Your task to perform on an android device: Go to Android settings Image 0: 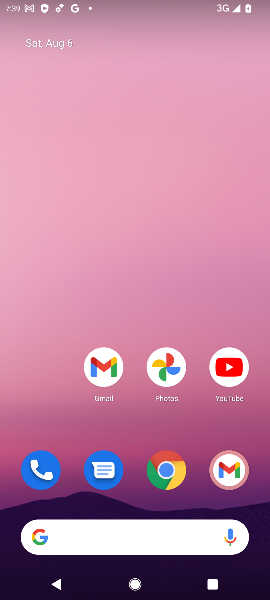
Step 0: drag from (143, 510) to (168, 30)
Your task to perform on an android device: Go to Android settings Image 1: 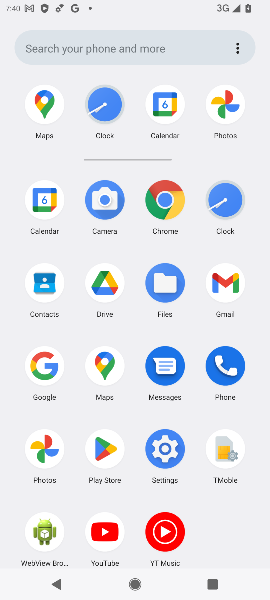
Step 1: click (177, 446)
Your task to perform on an android device: Go to Android settings Image 2: 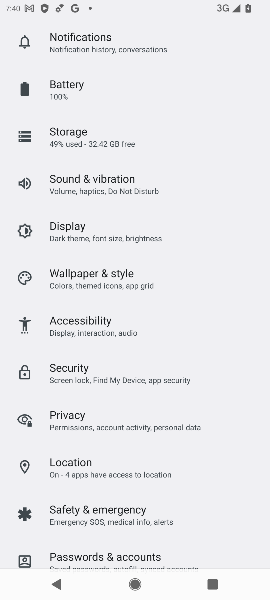
Step 2: drag from (96, 498) to (132, 30)
Your task to perform on an android device: Go to Android settings Image 3: 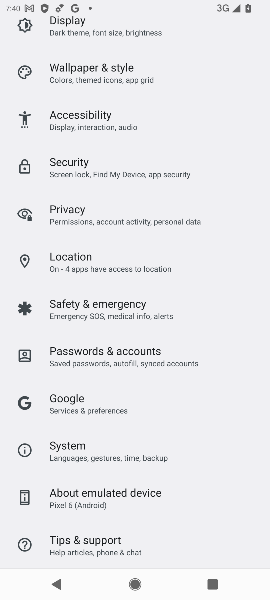
Step 3: drag from (81, 455) to (82, 161)
Your task to perform on an android device: Go to Android settings Image 4: 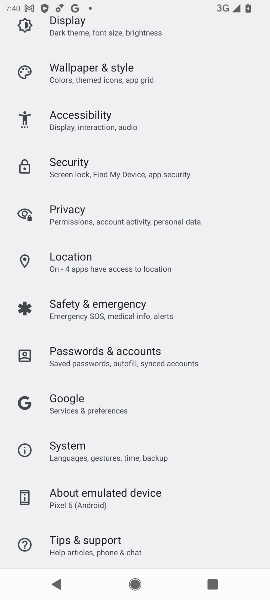
Step 4: click (105, 497)
Your task to perform on an android device: Go to Android settings Image 5: 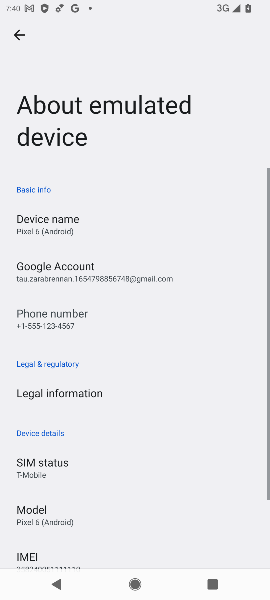
Step 5: drag from (96, 461) to (109, 104)
Your task to perform on an android device: Go to Android settings Image 6: 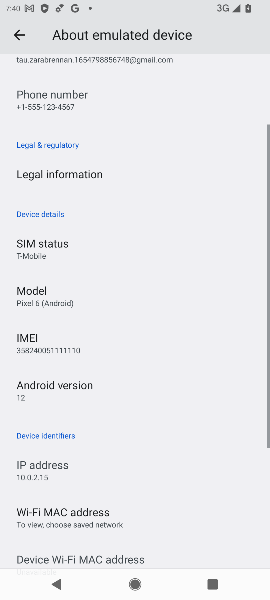
Step 6: click (79, 389)
Your task to perform on an android device: Go to Android settings Image 7: 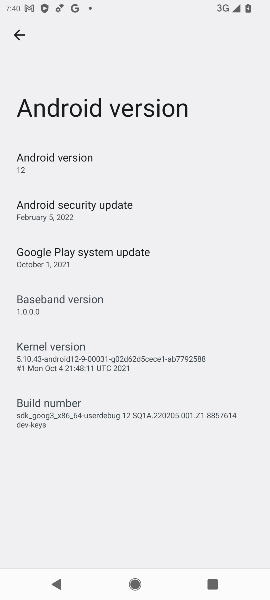
Step 7: task complete